Your task to perform on an android device: turn pop-ups off in chrome Image 0: 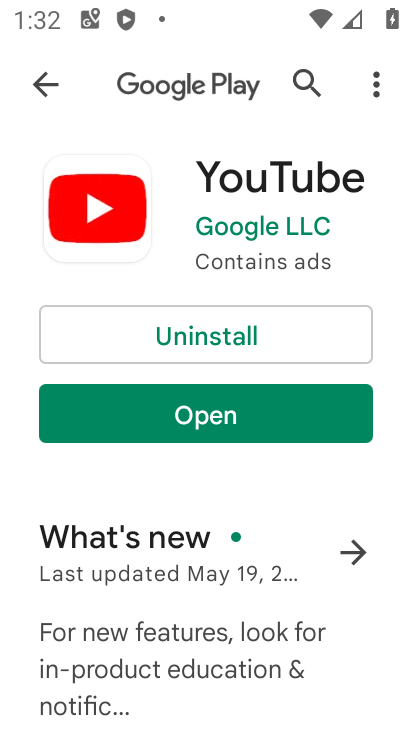
Step 0: press home button
Your task to perform on an android device: turn pop-ups off in chrome Image 1: 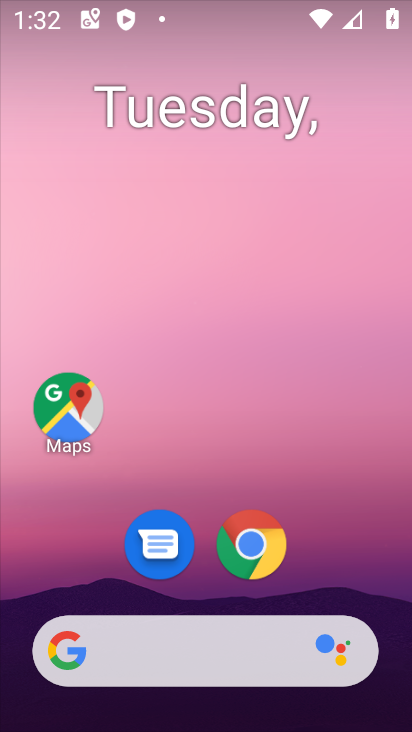
Step 1: click (249, 541)
Your task to perform on an android device: turn pop-ups off in chrome Image 2: 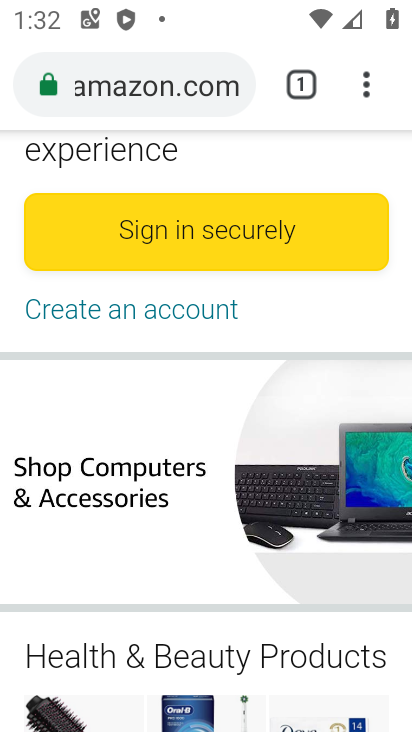
Step 2: click (366, 91)
Your task to perform on an android device: turn pop-ups off in chrome Image 3: 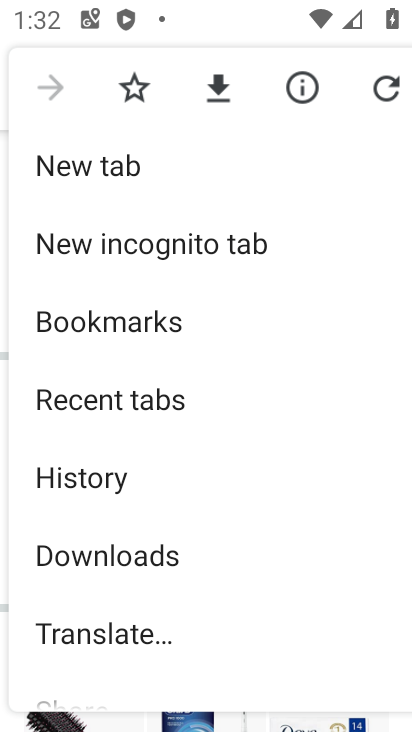
Step 3: drag from (251, 610) to (240, 348)
Your task to perform on an android device: turn pop-ups off in chrome Image 4: 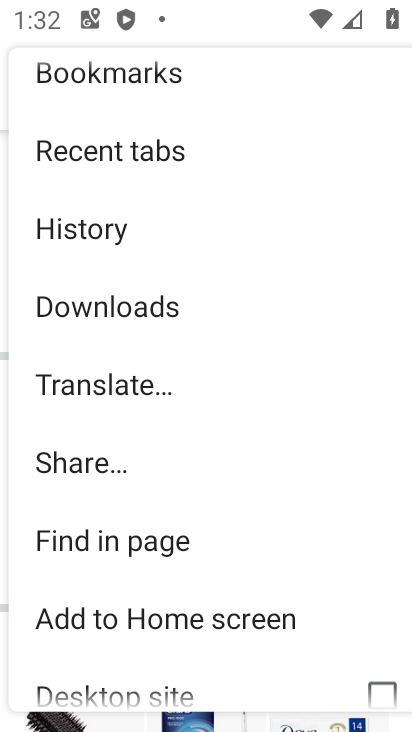
Step 4: drag from (319, 593) to (227, 296)
Your task to perform on an android device: turn pop-ups off in chrome Image 5: 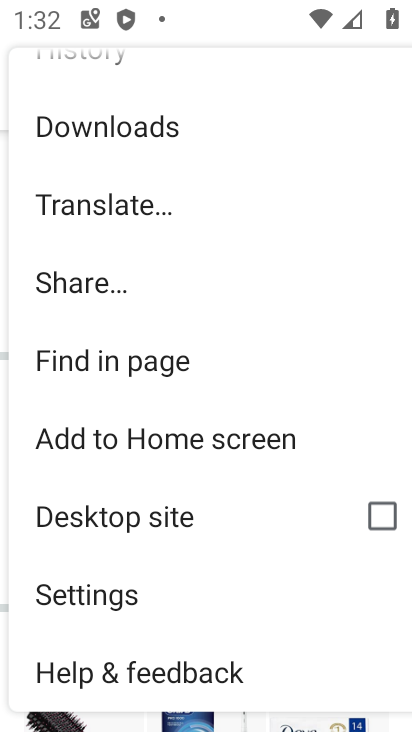
Step 5: click (108, 591)
Your task to perform on an android device: turn pop-ups off in chrome Image 6: 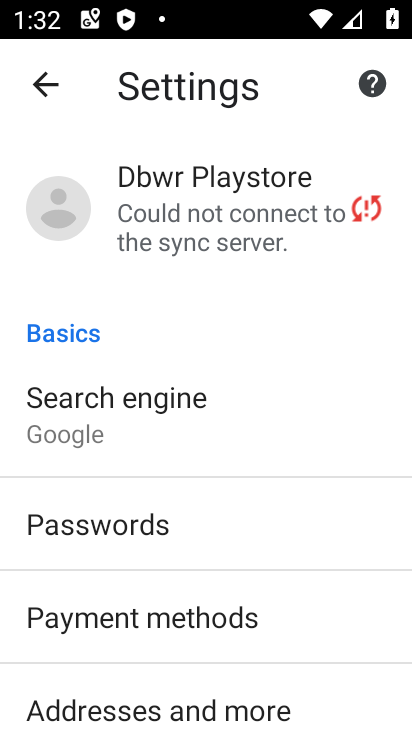
Step 6: drag from (271, 651) to (224, 261)
Your task to perform on an android device: turn pop-ups off in chrome Image 7: 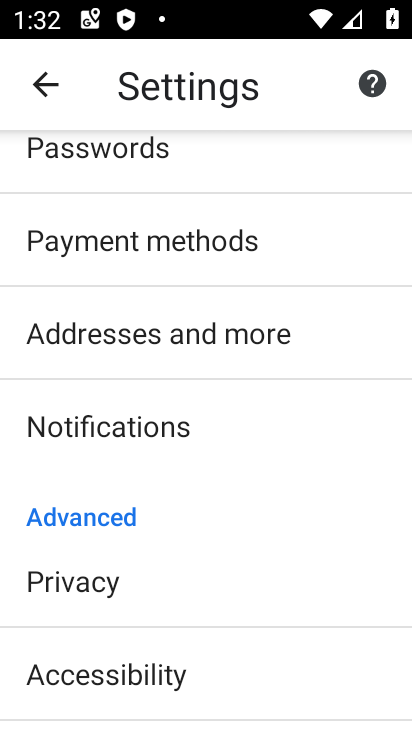
Step 7: drag from (218, 642) to (264, 249)
Your task to perform on an android device: turn pop-ups off in chrome Image 8: 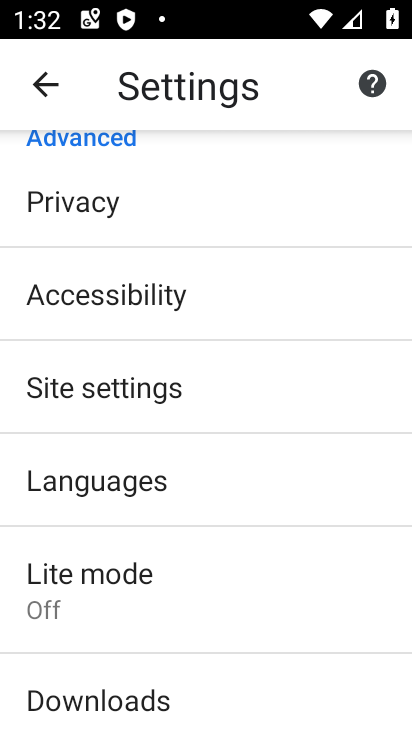
Step 8: click (115, 379)
Your task to perform on an android device: turn pop-ups off in chrome Image 9: 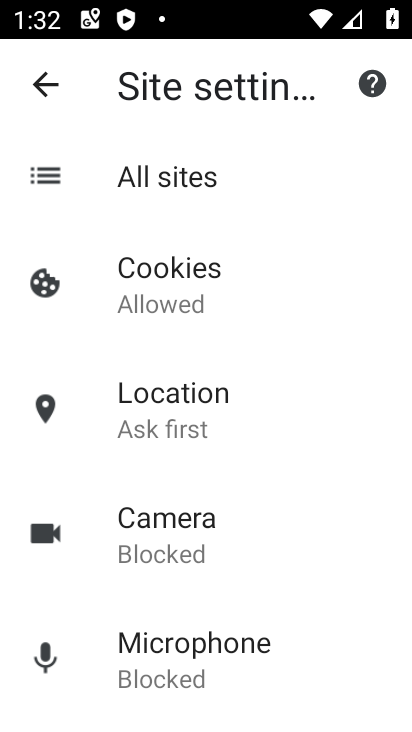
Step 9: drag from (302, 618) to (268, 200)
Your task to perform on an android device: turn pop-ups off in chrome Image 10: 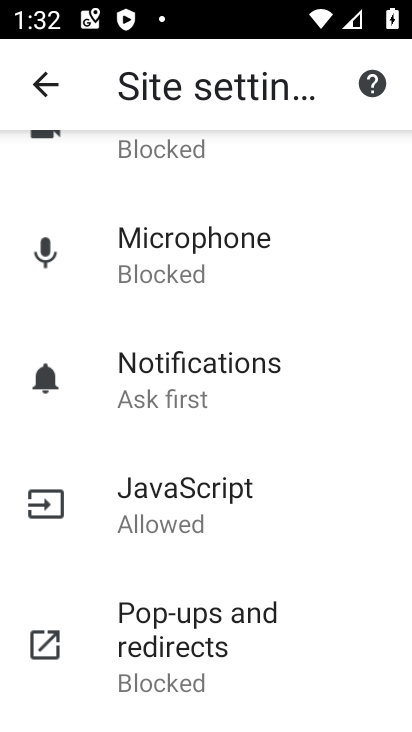
Step 10: click (163, 647)
Your task to perform on an android device: turn pop-ups off in chrome Image 11: 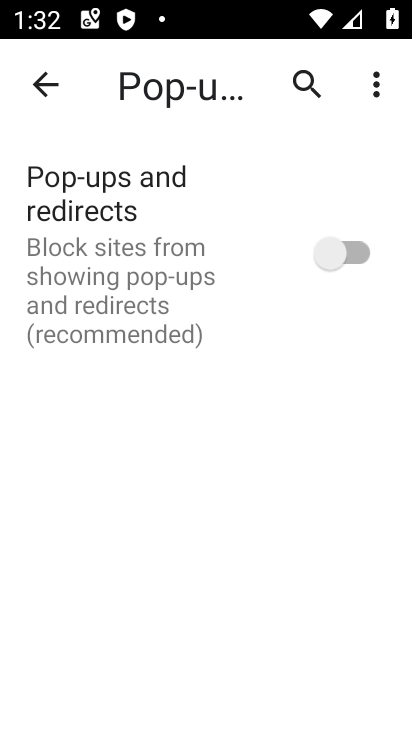
Step 11: task complete